Your task to perform on an android device: visit the assistant section in the google photos Image 0: 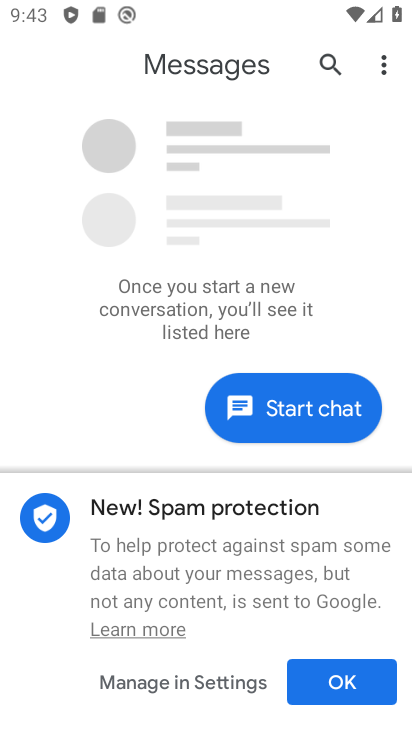
Step 0: press home button
Your task to perform on an android device: visit the assistant section in the google photos Image 1: 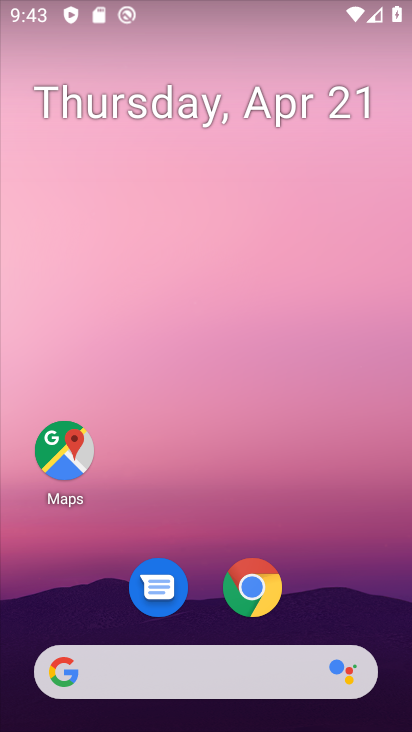
Step 1: drag from (346, 593) to (347, 36)
Your task to perform on an android device: visit the assistant section in the google photos Image 2: 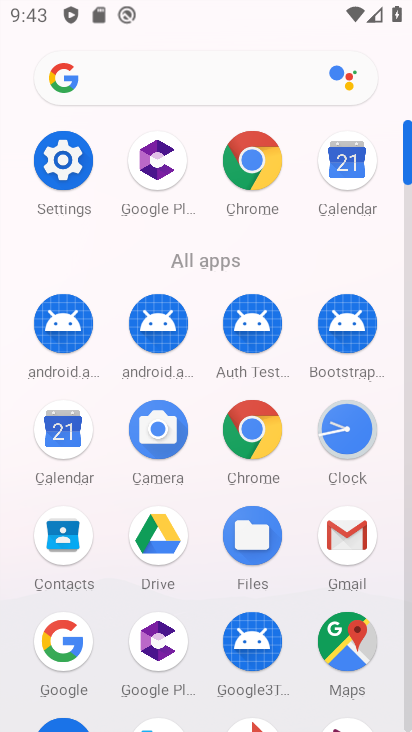
Step 2: drag from (389, 571) to (398, 157)
Your task to perform on an android device: visit the assistant section in the google photos Image 3: 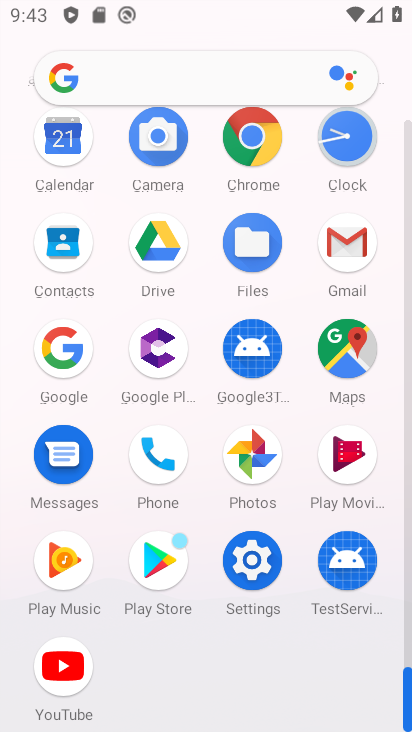
Step 3: click (248, 457)
Your task to perform on an android device: visit the assistant section in the google photos Image 4: 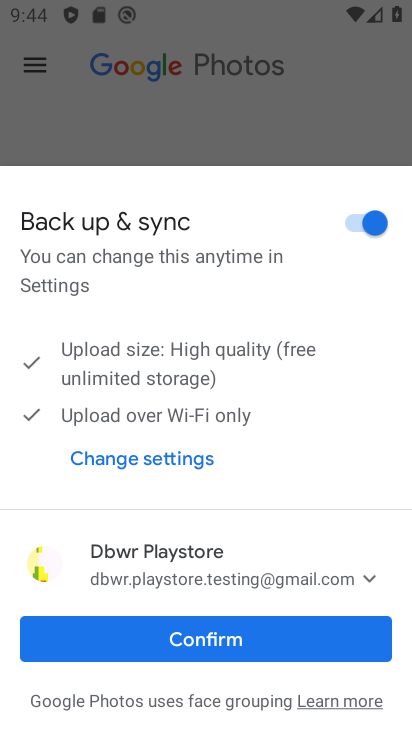
Step 4: click (273, 638)
Your task to perform on an android device: visit the assistant section in the google photos Image 5: 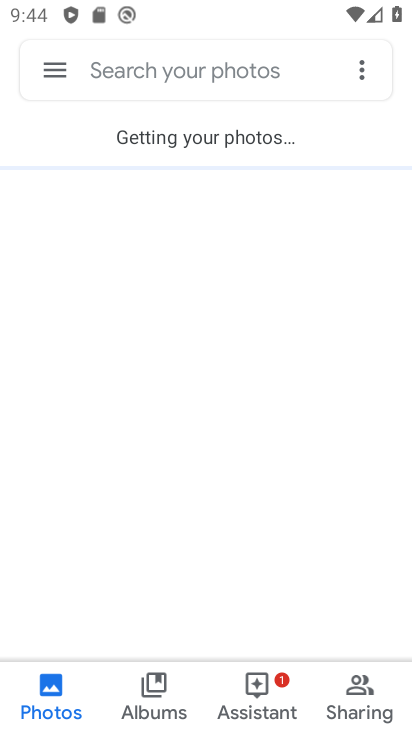
Step 5: click (260, 695)
Your task to perform on an android device: visit the assistant section in the google photos Image 6: 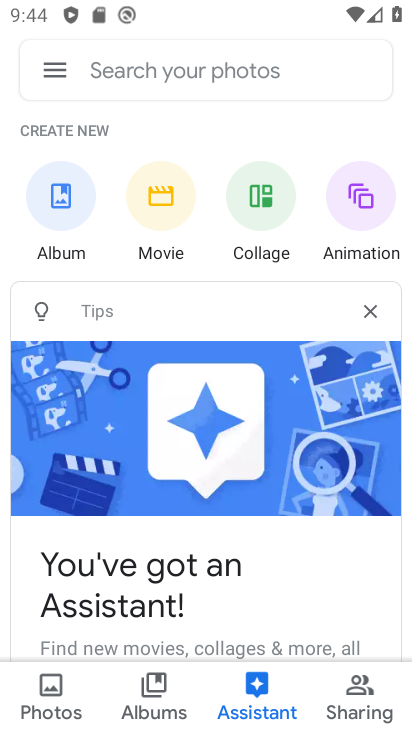
Step 6: task complete